Your task to perform on an android device: remove spam from my inbox in the gmail app Image 0: 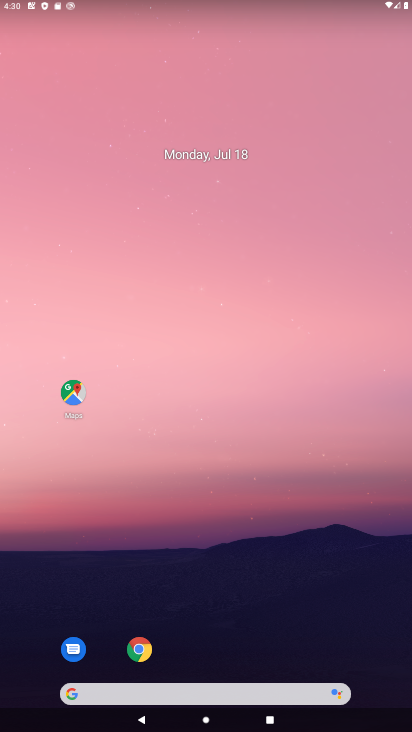
Step 0: drag from (188, 604) to (180, 220)
Your task to perform on an android device: remove spam from my inbox in the gmail app Image 1: 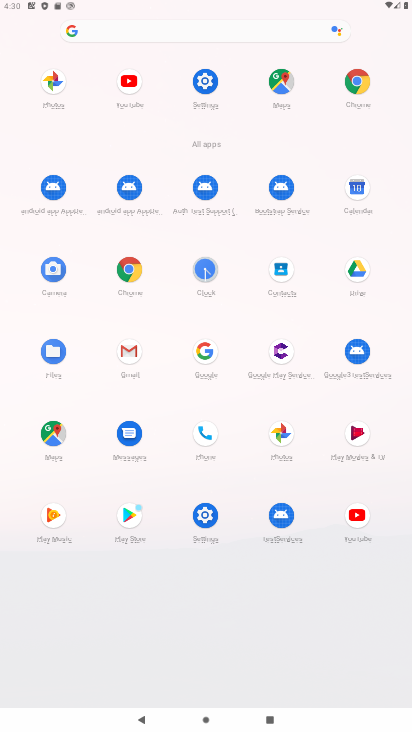
Step 1: click (134, 353)
Your task to perform on an android device: remove spam from my inbox in the gmail app Image 2: 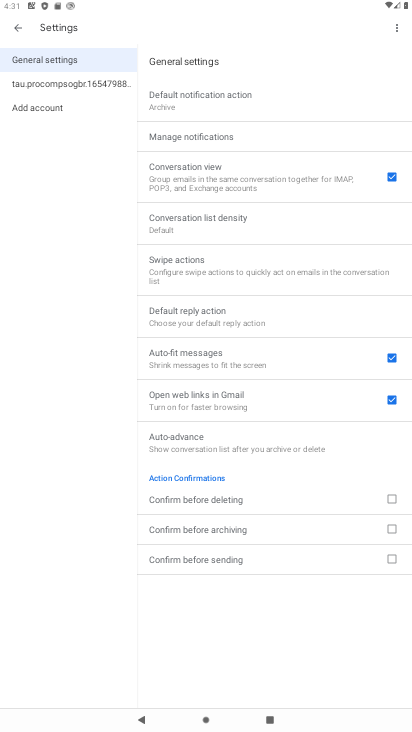
Step 2: click (14, 28)
Your task to perform on an android device: remove spam from my inbox in the gmail app Image 3: 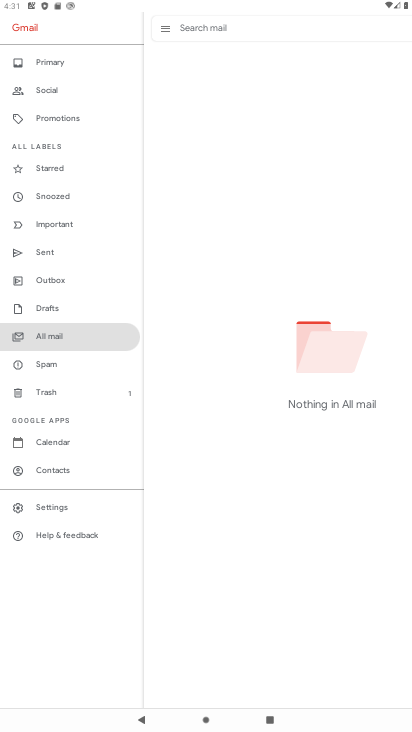
Step 3: click (56, 367)
Your task to perform on an android device: remove spam from my inbox in the gmail app Image 4: 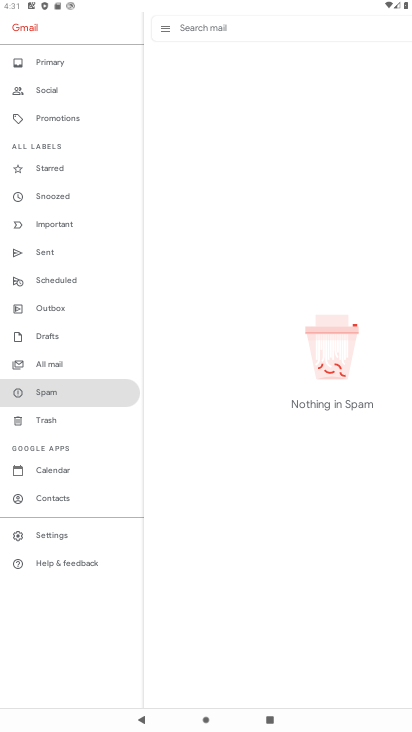
Step 4: task complete